Your task to perform on an android device: toggle javascript in the chrome app Image 0: 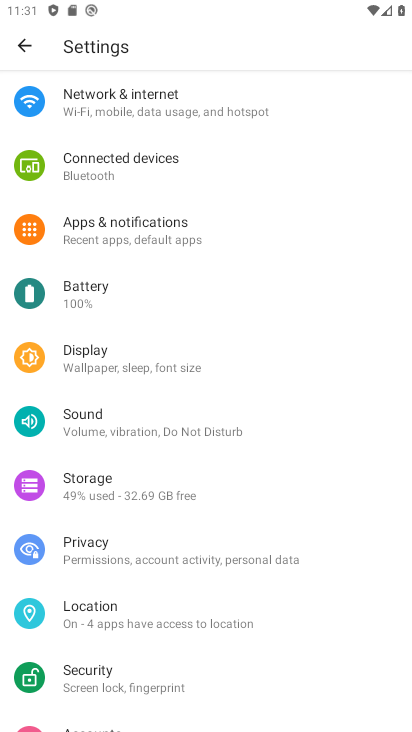
Step 0: click (148, 233)
Your task to perform on an android device: toggle javascript in the chrome app Image 1: 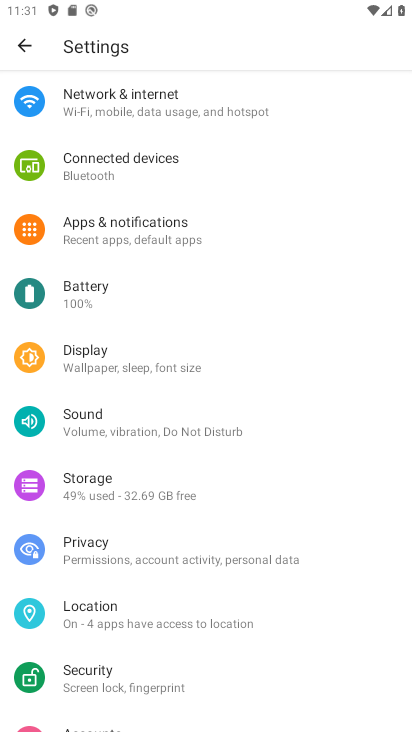
Step 1: drag from (168, 494) to (169, 253)
Your task to perform on an android device: toggle javascript in the chrome app Image 2: 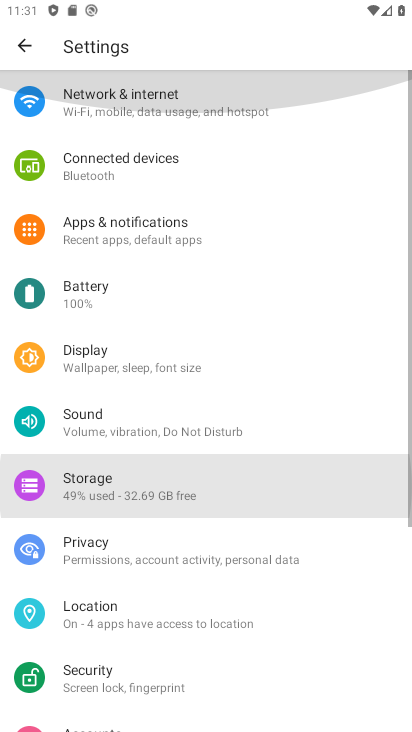
Step 2: drag from (157, 576) to (157, 356)
Your task to perform on an android device: toggle javascript in the chrome app Image 3: 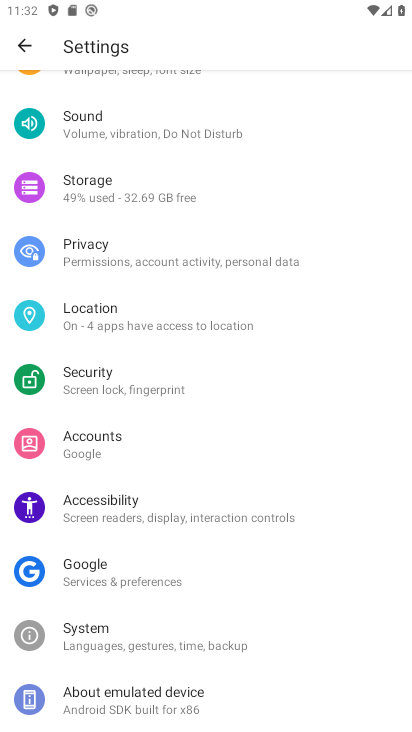
Step 3: press home button
Your task to perform on an android device: toggle javascript in the chrome app Image 4: 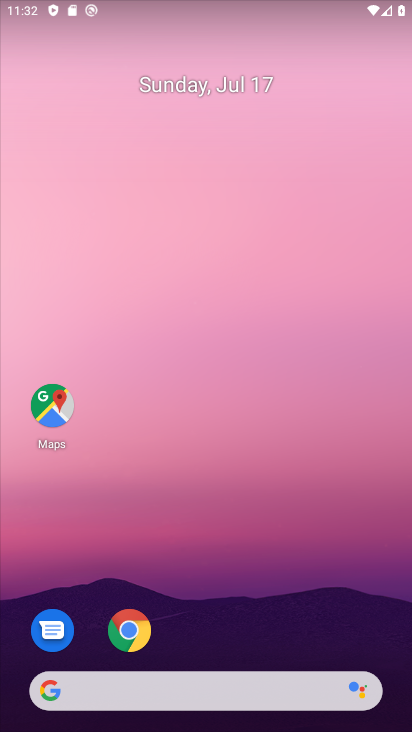
Step 4: drag from (193, 632) to (224, 79)
Your task to perform on an android device: toggle javascript in the chrome app Image 5: 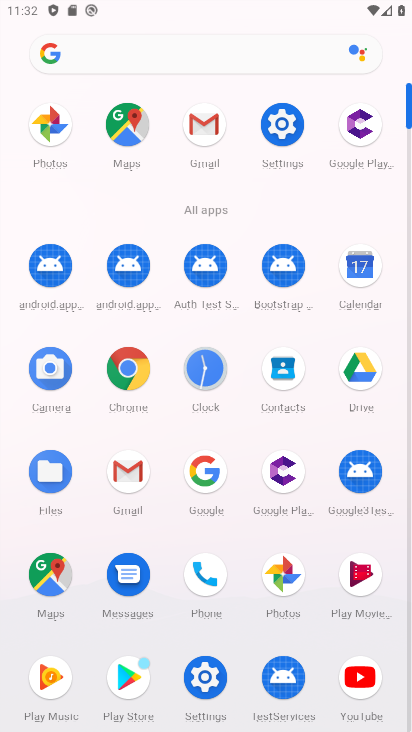
Step 5: click (136, 356)
Your task to perform on an android device: toggle javascript in the chrome app Image 6: 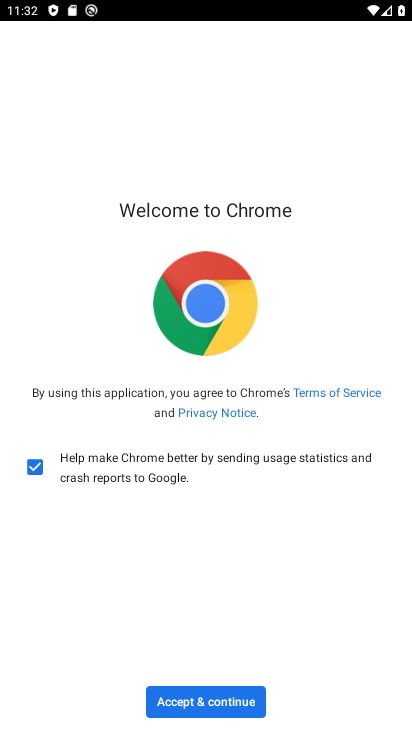
Step 6: click (231, 698)
Your task to perform on an android device: toggle javascript in the chrome app Image 7: 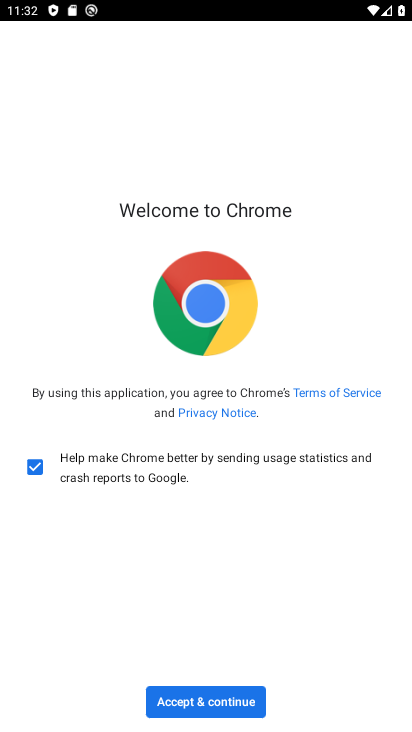
Step 7: click (229, 700)
Your task to perform on an android device: toggle javascript in the chrome app Image 8: 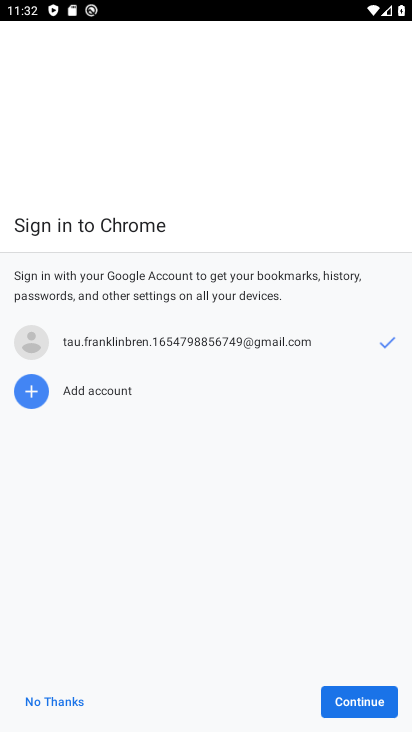
Step 8: click (410, 502)
Your task to perform on an android device: toggle javascript in the chrome app Image 9: 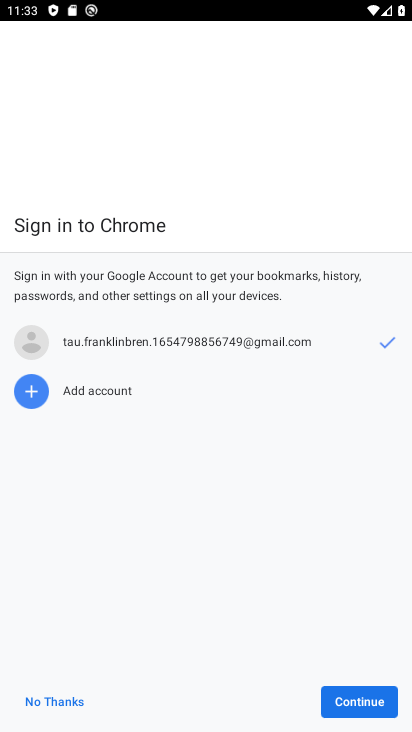
Step 9: click (351, 696)
Your task to perform on an android device: toggle javascript in the chrome app Image 10: 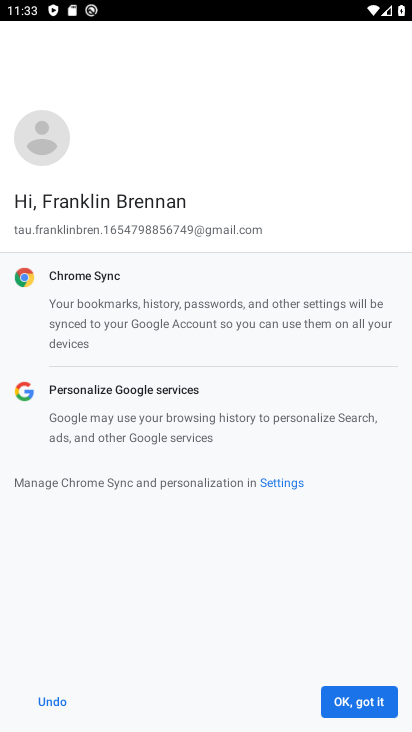
Step 10: click (359, 718)
Your task to perform on an android device: toggle javascript in the chrome app Image 11: 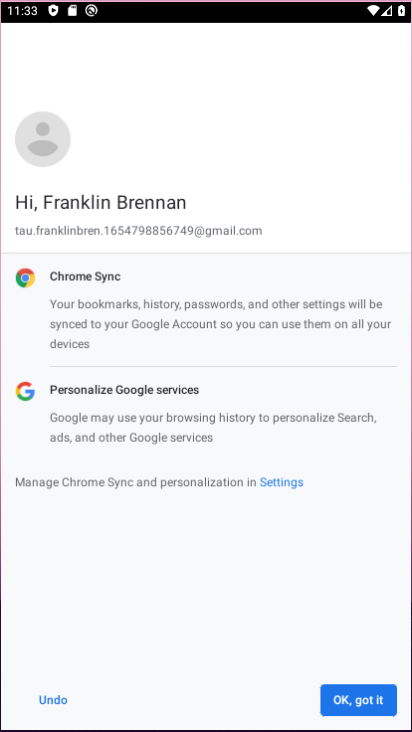
Step 11: click (360, 712)
Your task to perform on an android device: toggle javascript in the chrome app Image 12: 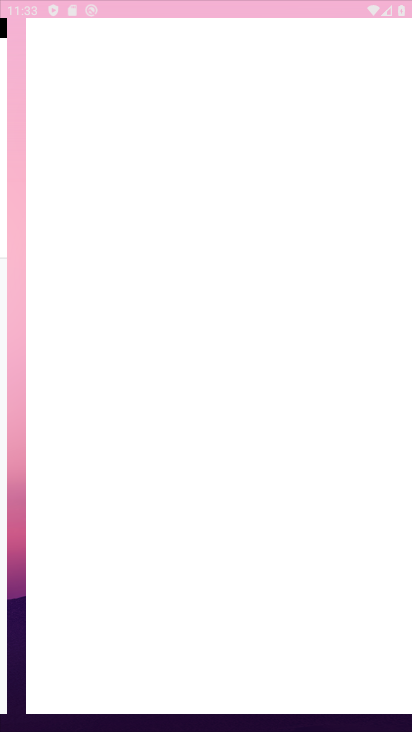
Step 12: click (360, 712)
Your task to perform on an android device: toggle javascript in the chrome app Image 13: 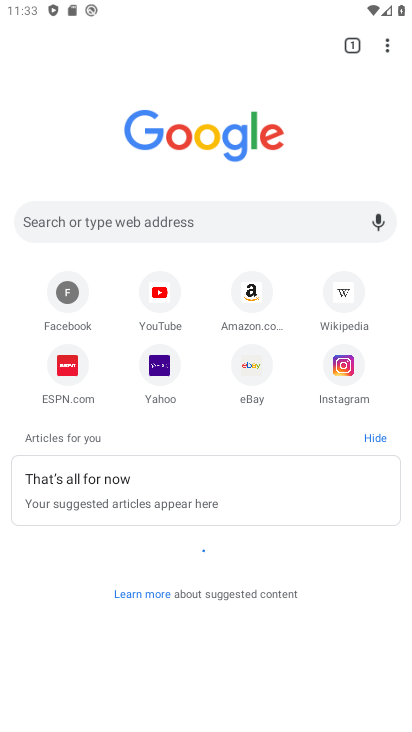
Step 13: drag from (386, 36) to (228, 381)
Your task to perform on an android device: toggle javascript in the chrome app Image 14: 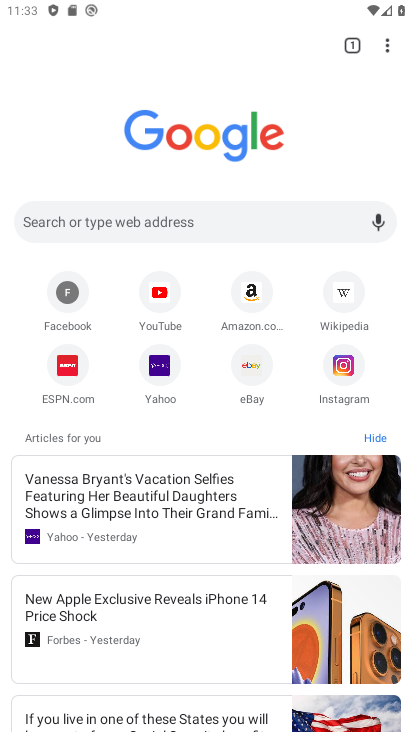
Step 14: click (232, 379)
Your task to perform on an android device: toggle javascript in the chrome app Image 15: 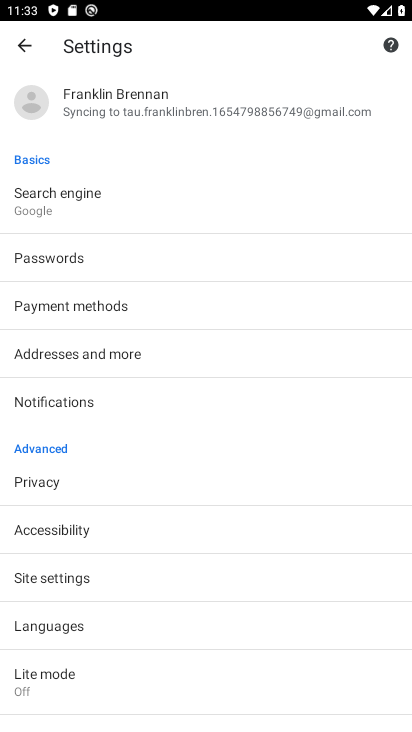
Step 15: click (44, 568)
Your task to perform on an android device: toggle javascript in the chrome app Image 16: 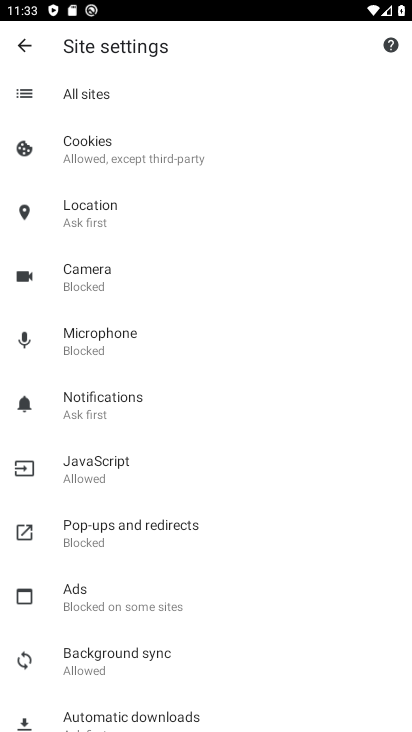
Step 16: click (86, 478)
Your task to perform on an android device: toggle javascript in the chrome app Image 17: 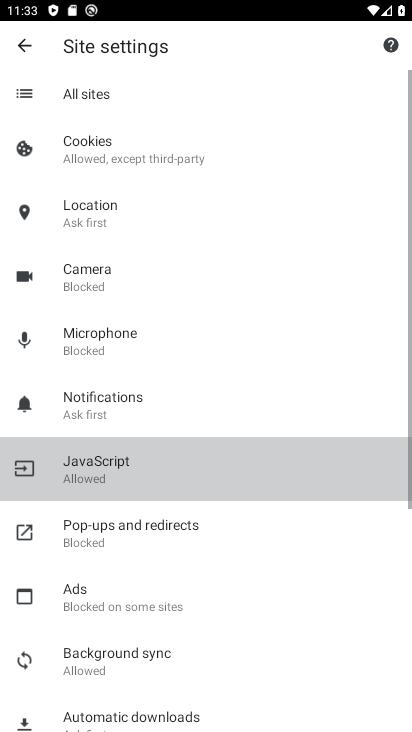
Step 17: click (86, 478)
Your task to perform on an android device: toggle javascript in the chrome app Image 18: 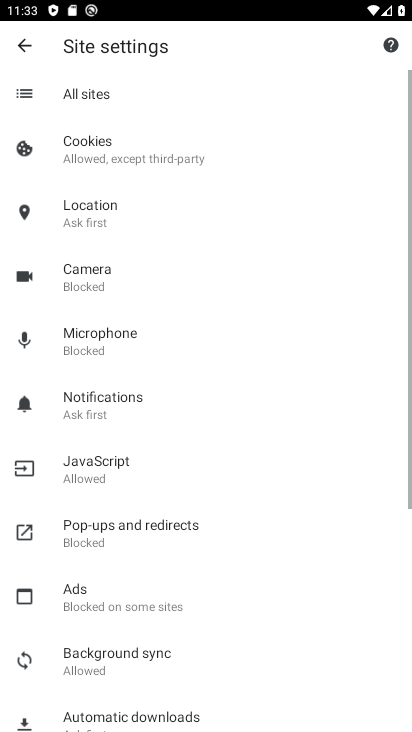
Step 18: click (94, 473)
Your task to perform on an android device: toggle javascript in the chrome app Image 19: 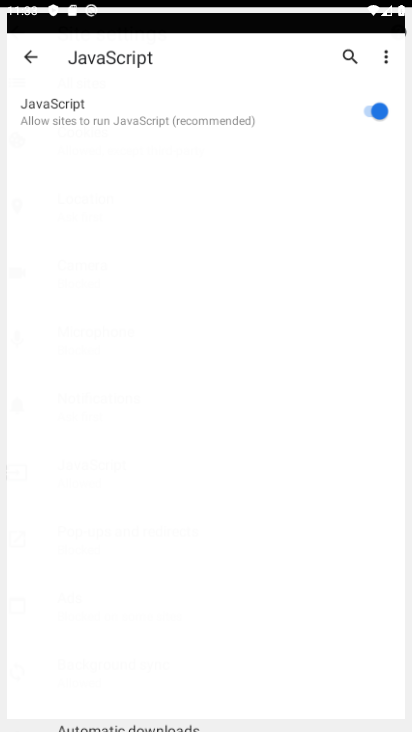
Step 19: click (95, 471)
Your task to perform on an android device: toggle javascript in the chrome app Image 20: 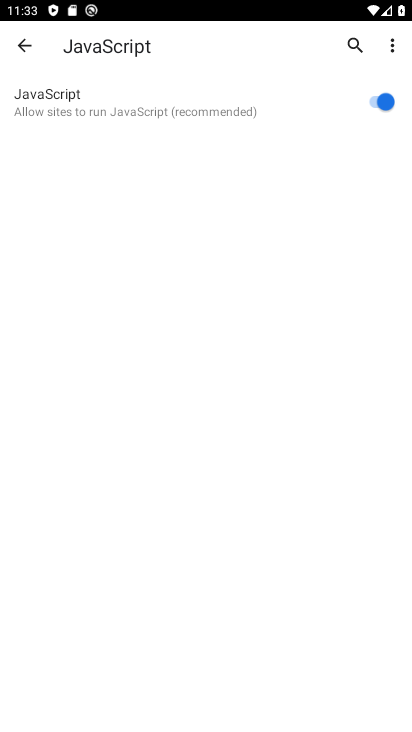
Step 20: click (382, 98)
Your task to perform on an android device: toggle javascript in the chrome app Image 21: 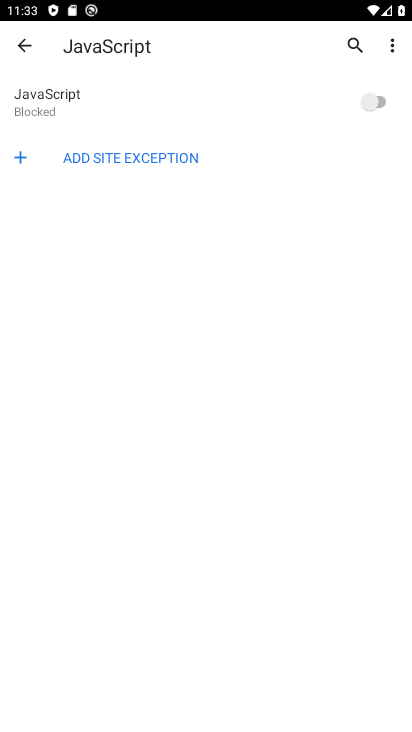
Step 21: task complete